Your task to perform on an android device: check out phone information Image 0: 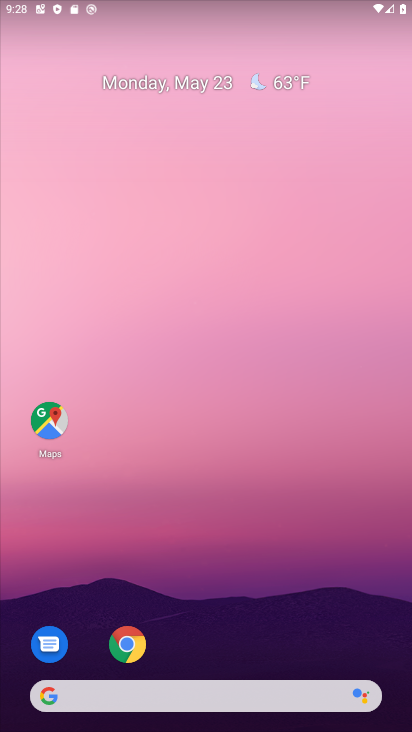
Step 0: press home button
Your task to perform on an android device: check out phone information Image 1: 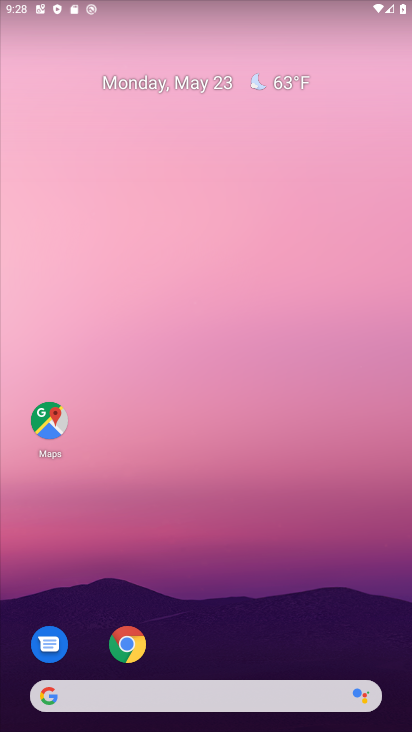
Step 1: drag from (202, 656) to (307, 70)
Your task to perform on an android device: check out phone information Image 2: 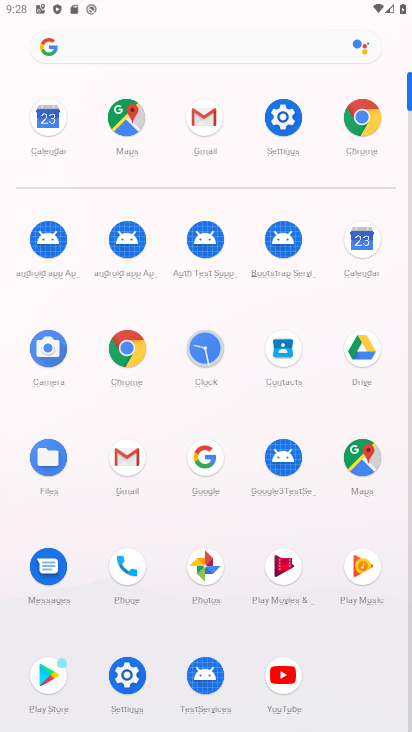
Step 2: click (132, 676)
Your task to perform on an android device: check out phone information Image 3: 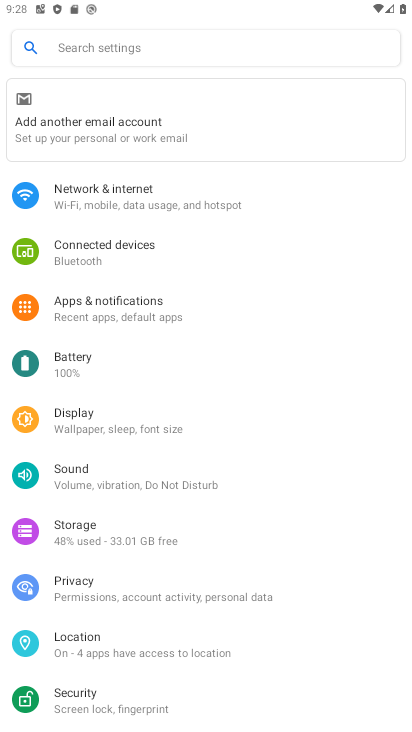
Step 3: drag from (127, 656) to (190, 106)
Your task to perform on an android device: check out phone information Image 4: 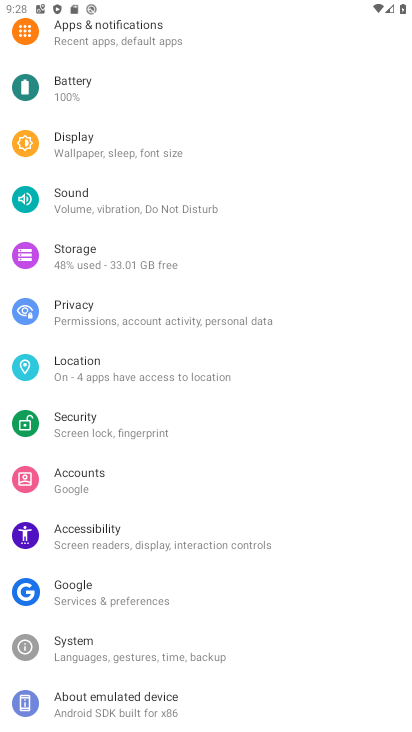
Step 4: click (82, 710)
Your task to perform on an android device: check out phone information Image 5: 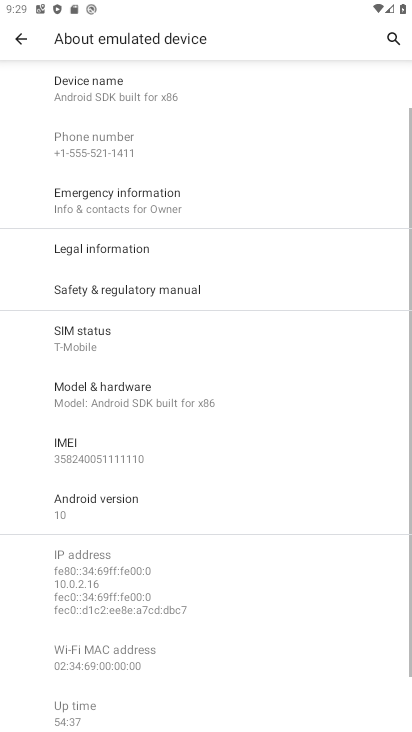
Step 5: task complete